Your task to perform on an android device: check storage Image 0: 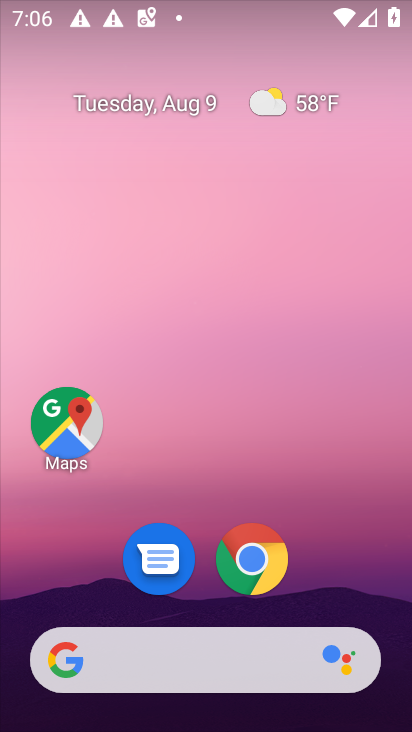
Step 0: drag from (200, 582) to (206, 174)
Your task to perform on an android device: check storage Image 1: 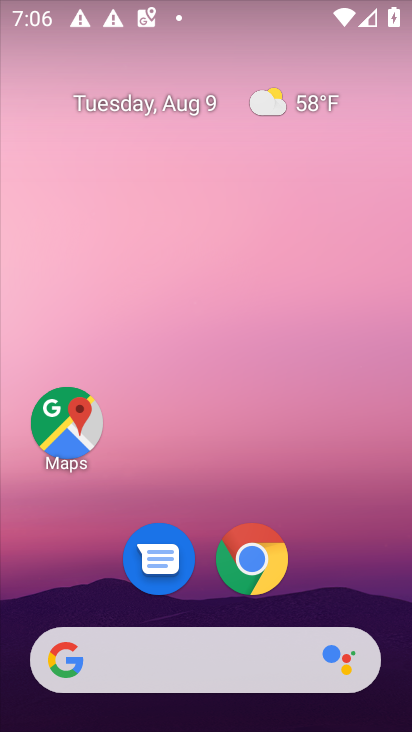
Step 1: click (212, 15)
Your task to perform on an android device: check storage Image 2: 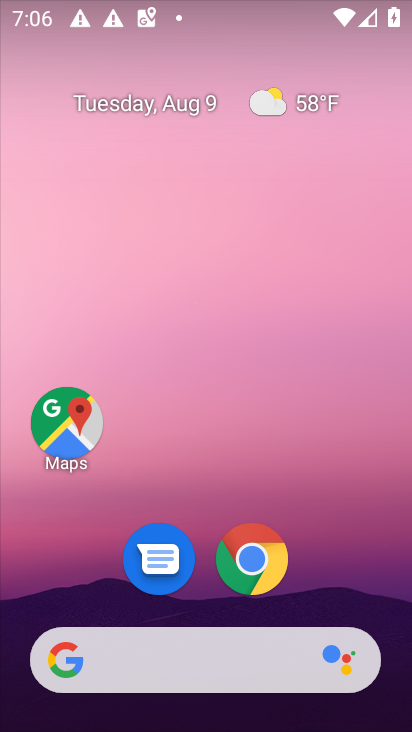
Step 2: drag from (200, 588) to (191, 216)
Your task to perform on an android device: check storage Image 3: 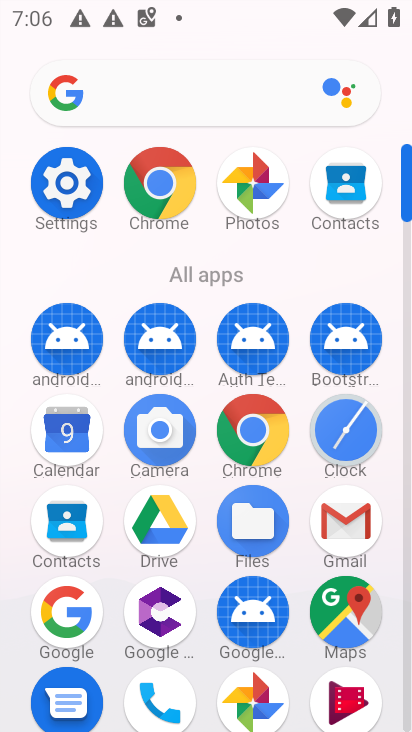
Step 3: click (58, 192)
Your task to perform on an android device: check storage Image 4: 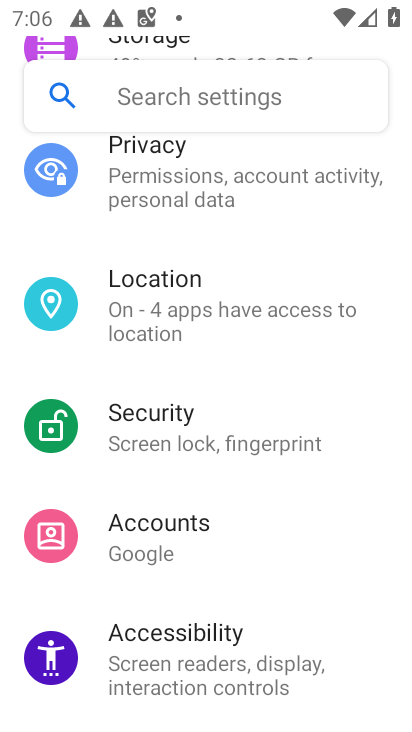
Step 4: drag from (238, 278) to (196, 606)
Your task to perform on an android device: check storage Image 5: 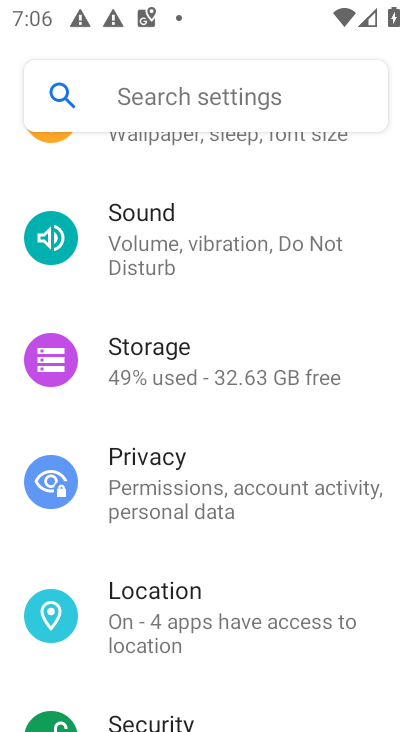
Step 5: click (196, 369)
Your task to perform on an android device: check storage Image 6: 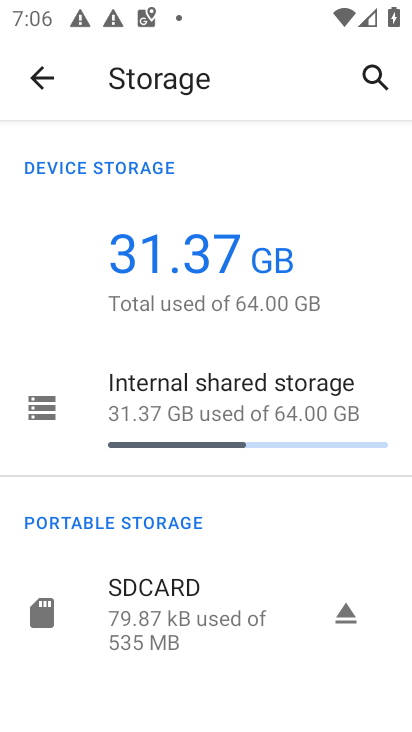
Step 6: task complete